Your task to perform on an android device: turn on bluetooth scan Image 0: 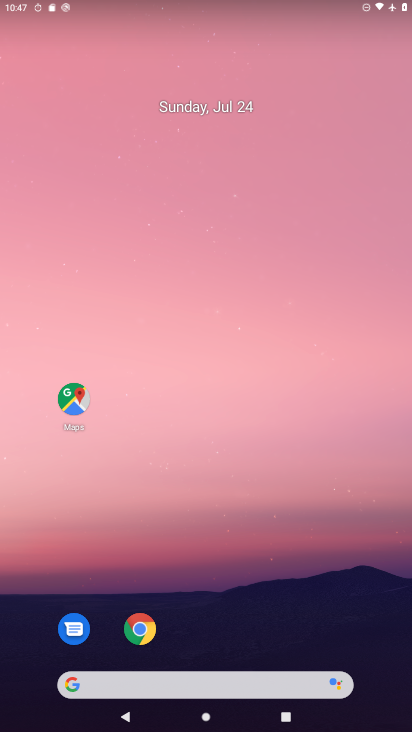
Step 0: drag from (141, 524) to (241, 167)
Your task to perform on an android device: turn on bluetooth scan Image 1: 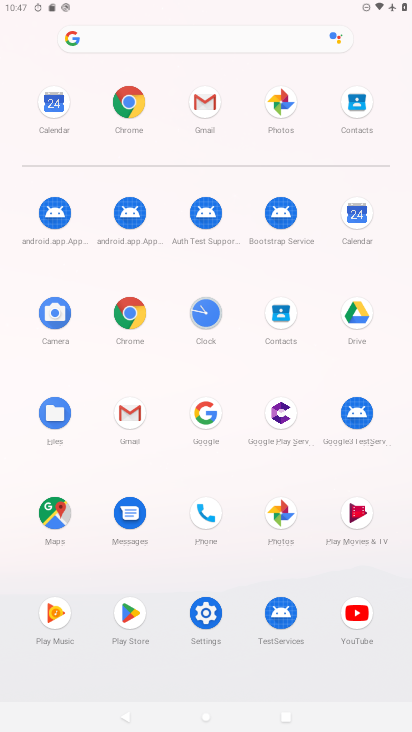
Step 1: click (201, 618)
Your task to perform on an android device: turn on bluetooth scan Image 2: 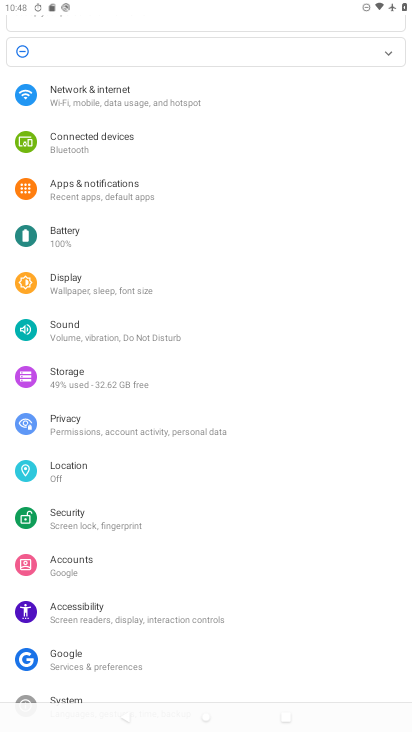
Step 2: click (132, 130)
Your task to perform on an android device: turn on bluetooth scan Image 3: 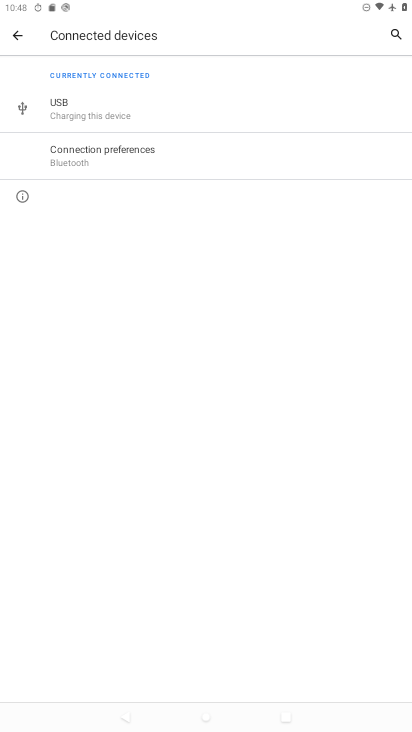
Step 3: click (157, 156)
Your task to perform on an android device: turn on bluetooth scan Image 4: 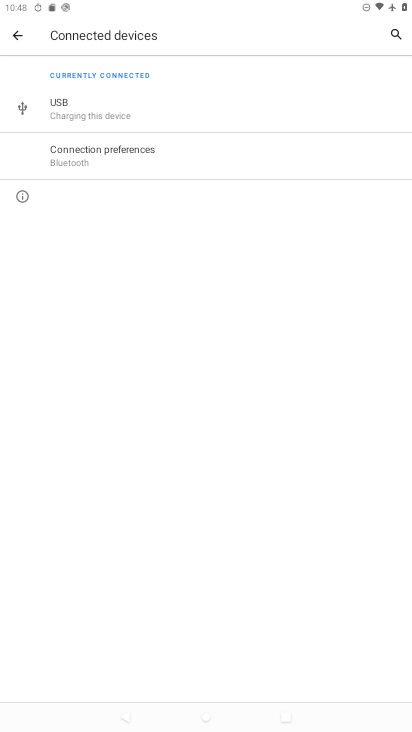
Step 4: click (114, 152)
Your task to perform on an android device: turn on bluetooth scan Image 5: 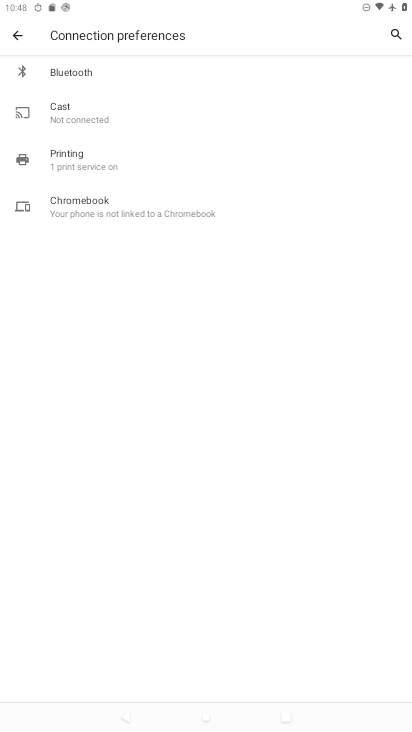
Step 5: click (97, 79)
Your task to perform on an android device: turn on bluetooth scan Image 6: 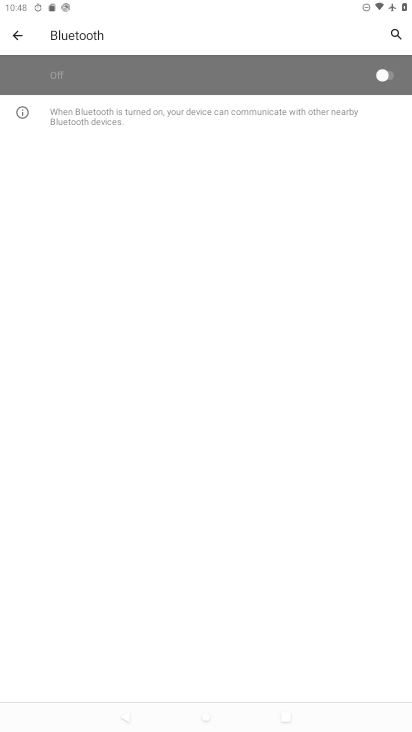
Step 6: click (387, 87)
Your task to perform on an android device: turn on bluetooth scan Image 7: 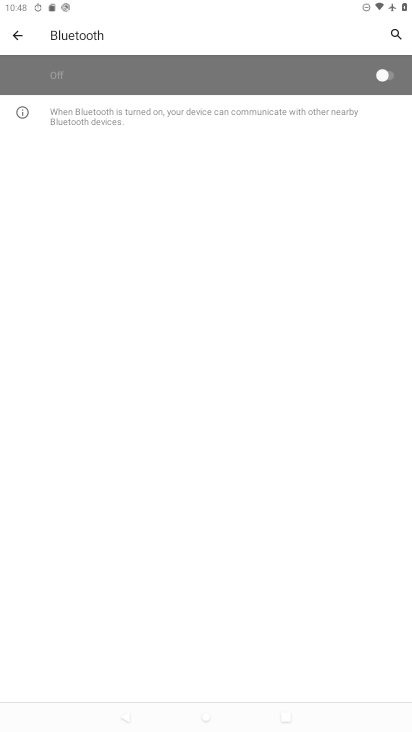
Step 7: task complete